Your task to perform on an android device: open sync settings in chrome Image 0: 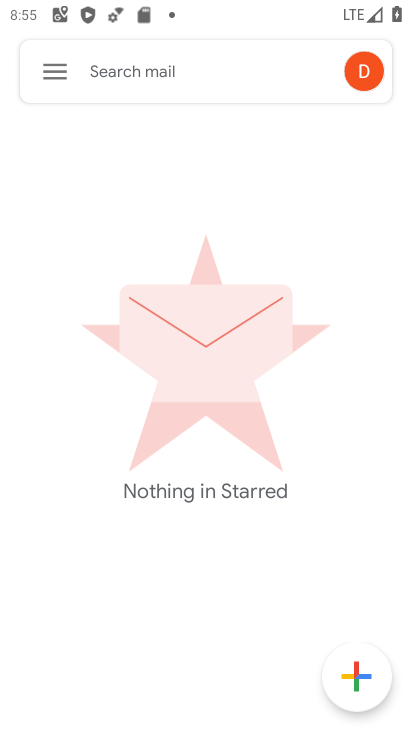
Step 0: press back button
Your task to perform on an android device: open sync settings in chrome Image 1: 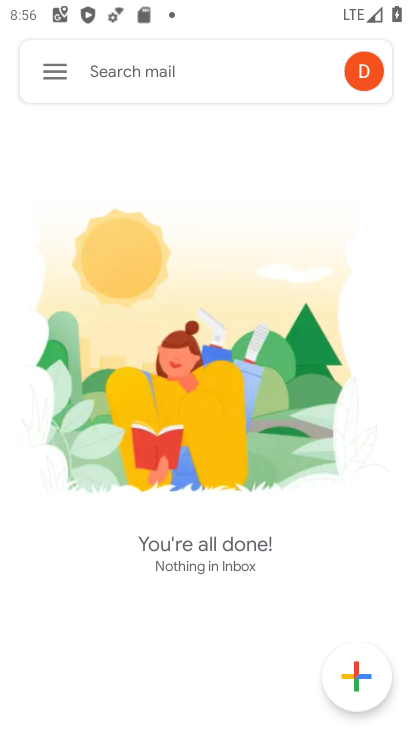
Step 1: press back button
Your task to perform on an android device: open sync settings in chrome Image 2: 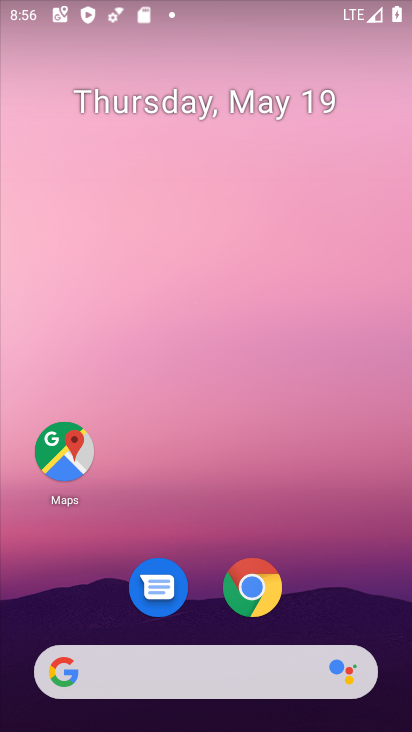
Step 2: drag from (332, 579) to (265, 3)
Your task to perform on an android device: open sync settings in chrome Image 3: 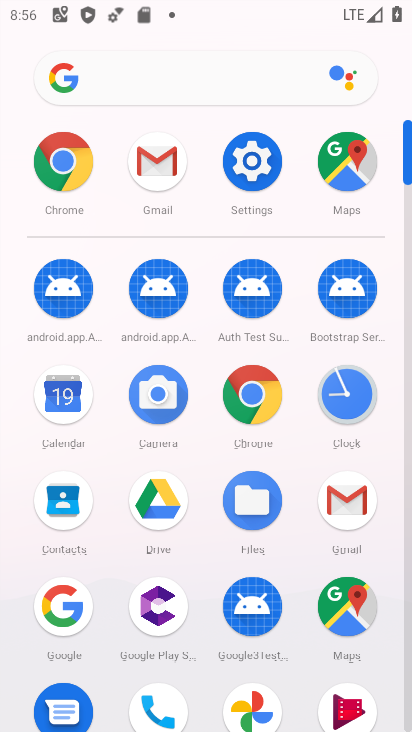
Step 3: drag from (11, 579) to (0, 288)
Your task to perform on an android device: open sync settings in chrome Image 4: 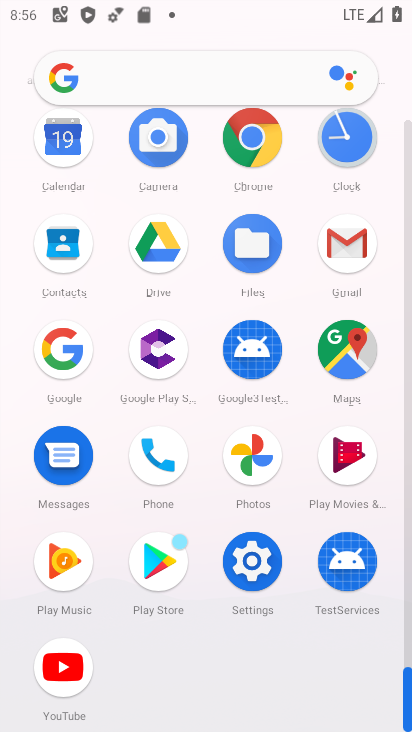
Step 4: click (251, 134)
Your task to perform on an android device: open sync settings in chrome Image 5: 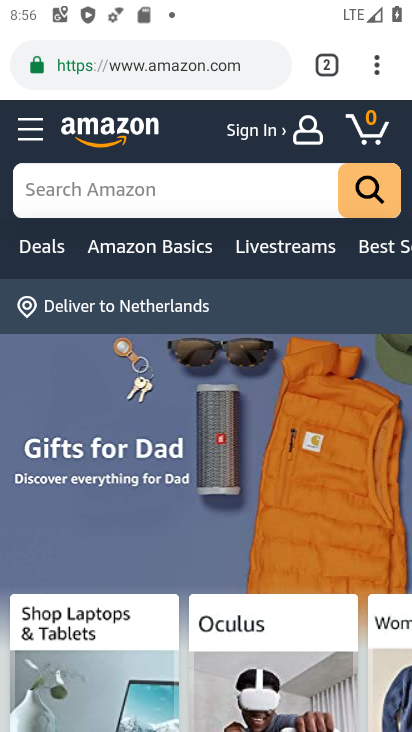
Step 5: drag from (376, 71) to (170, 613)
Your task to perform on an android device: open sync settings in chrome Image 6: 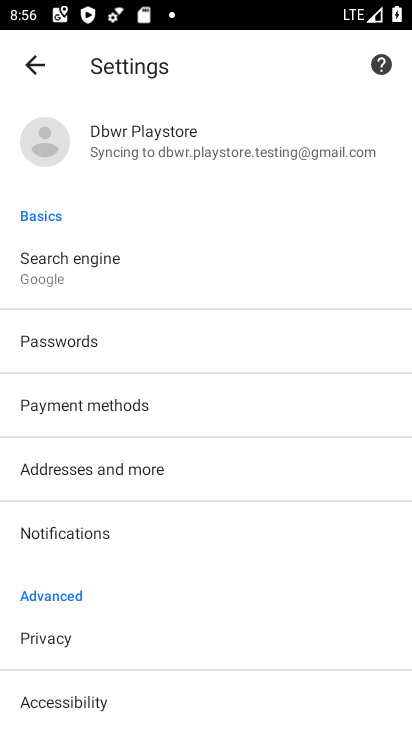
Step 6: drag from (204, 582) to (223, 211)
Your task to perform on an android device: open sync settings in chrome Image 7: 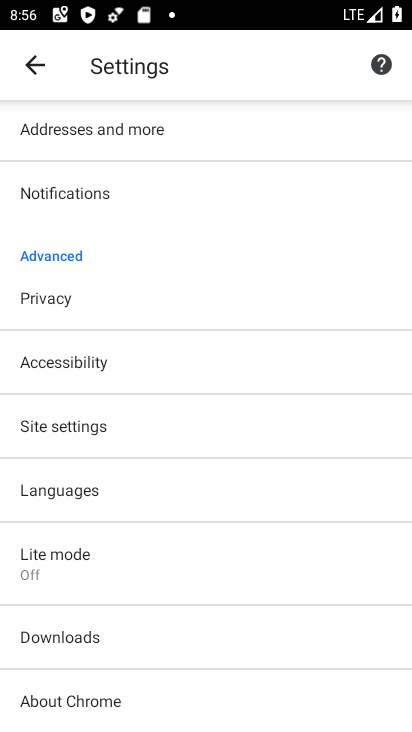
Step 7: drag from (221, 575) to (227, 173)
Your task to perform on an android device: open sync settings in chrome Image 8: 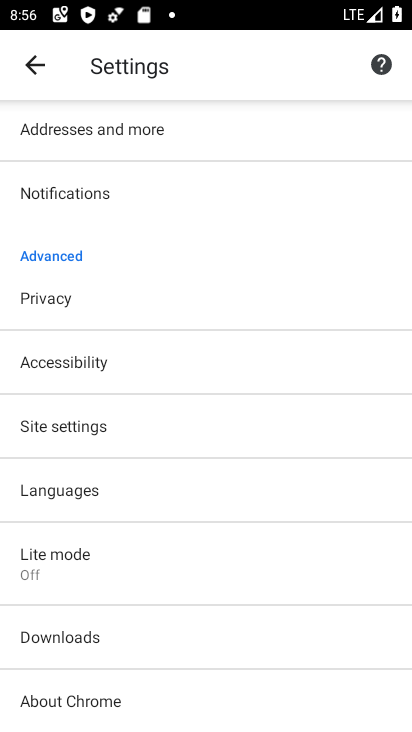
Step 8: drag from (200, 675) to (205, 360)
Your task to perform on an android device: open sync settings in chrome Image 9: 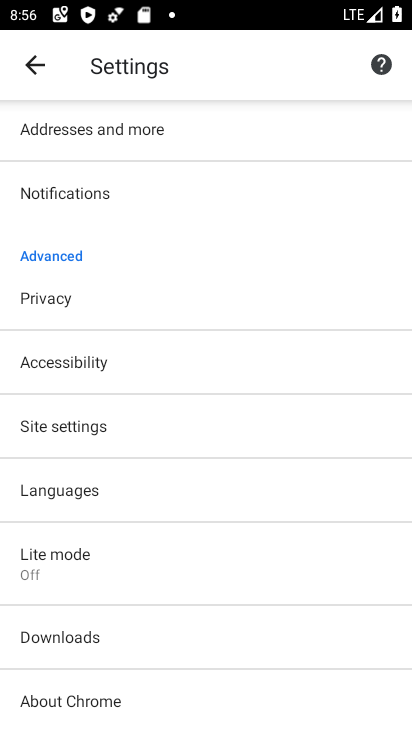
Step 9: drag from (234, 228) to (272, 694)
Your task to perform on an android device: open sync settings in chrome Image 10: 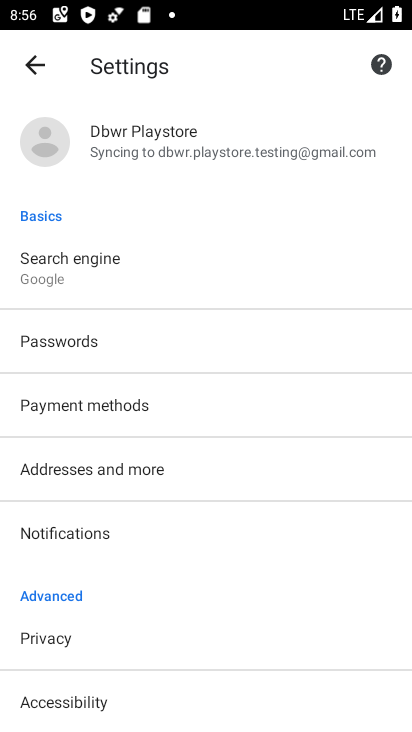
Step 10: drag from (276, 281) to (277, 673)
Your task to perform on an android device: open sync settings in chrome Image 11: 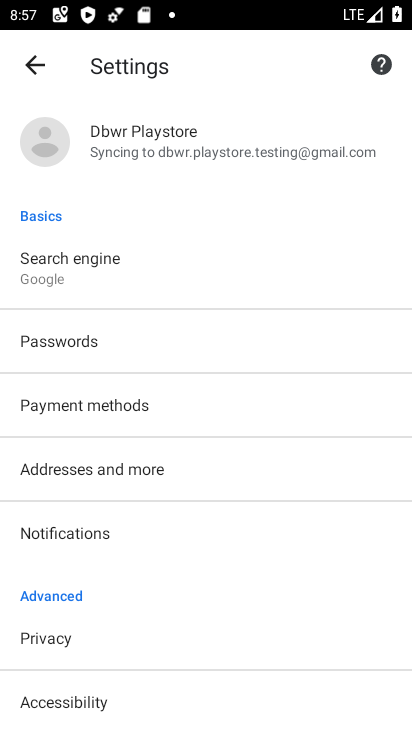
Step 11: click (145, 125)
Your task to perform on an android device: open sync settings in chrome Image 12: 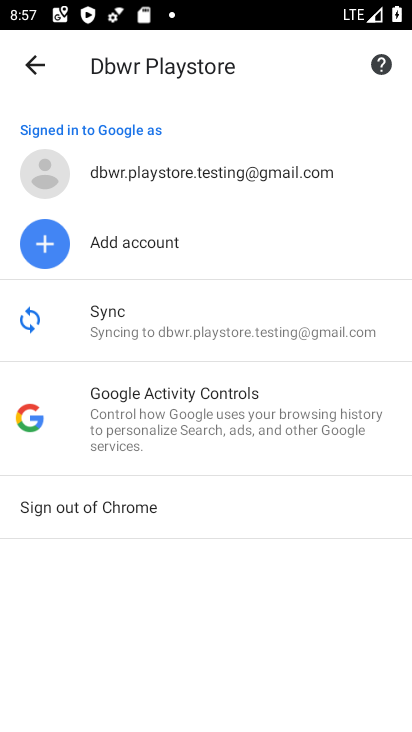
Step 12: click (155, 332)
Your task to perform on an android device: open sync settings in chrome Image 13: 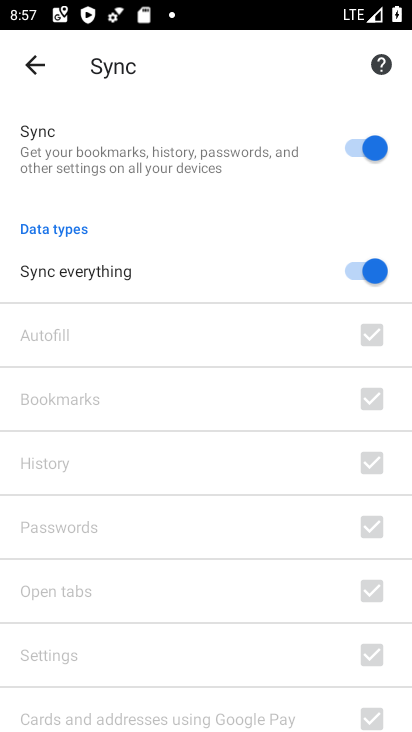
Step 13: task complete